Your task to perform on an android device: toggle wifi Image 0: 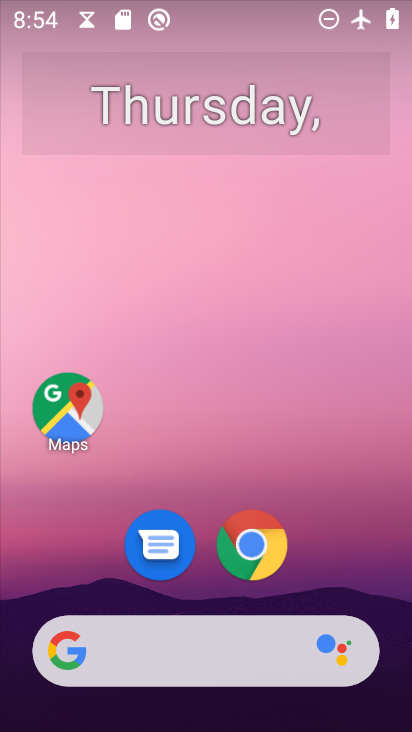
Step 0: drag from (350, 578) to (250, 142)
Your task to perform on an android device: toggle wifi Image 1: 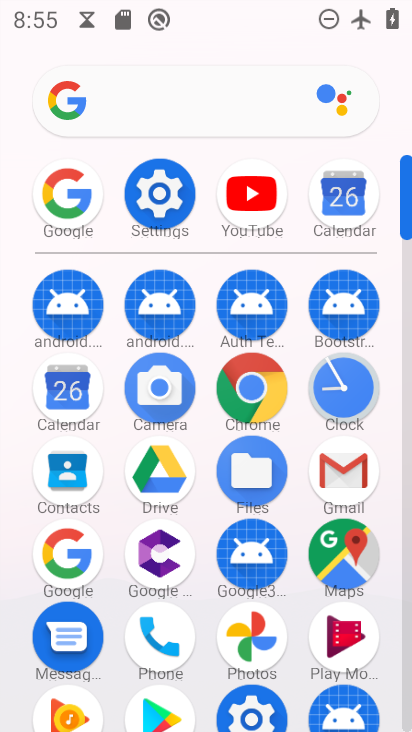
Step 1: click (161, 191)
Your task to perform on an android device: toggle wifi Image 2: 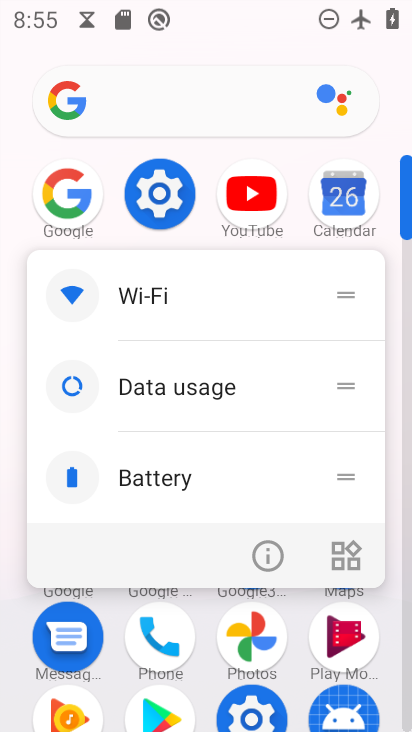
Step 2: click (161, 191)
Your task to perform on an android device: toggle wifi Image 3: 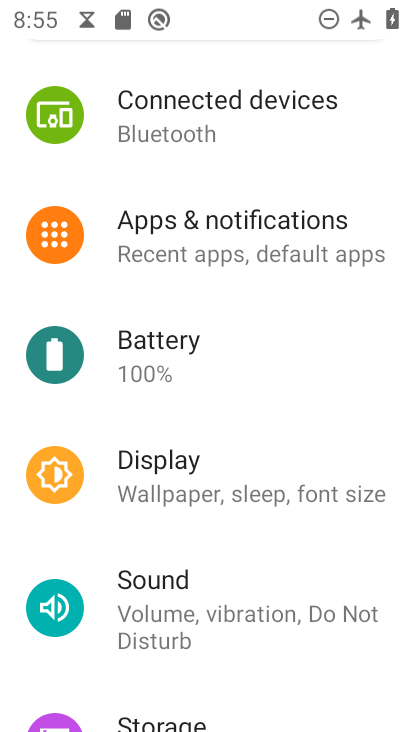
Step 3: drag from (202, 159) to (219, 273)
Your task to perform on an android device: toggle wifi Image 4: 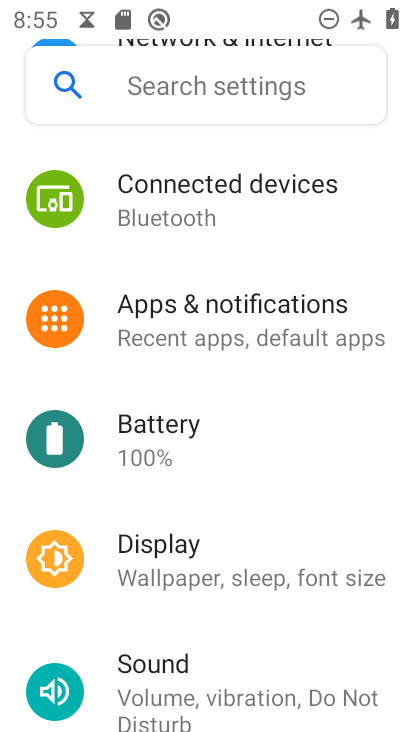
Step 4: drag from (218, 159) to (263, 286)
Your task to perform on an android device: toggle wifi Image 5: 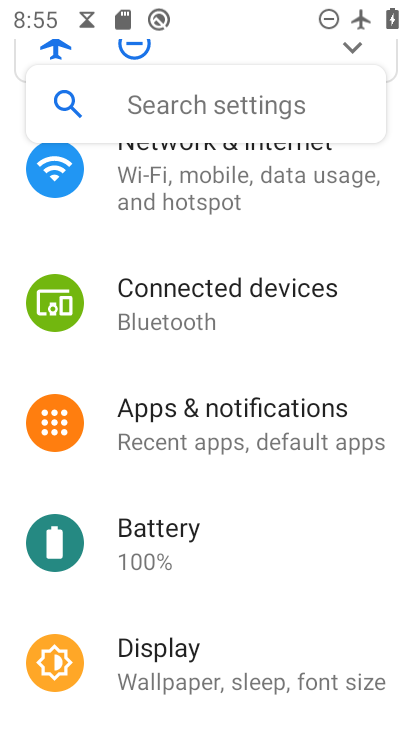
Step 5: drag from (228, 252) to (256, 399)
Your task to perform on an android device: toggle wifi Image 6: 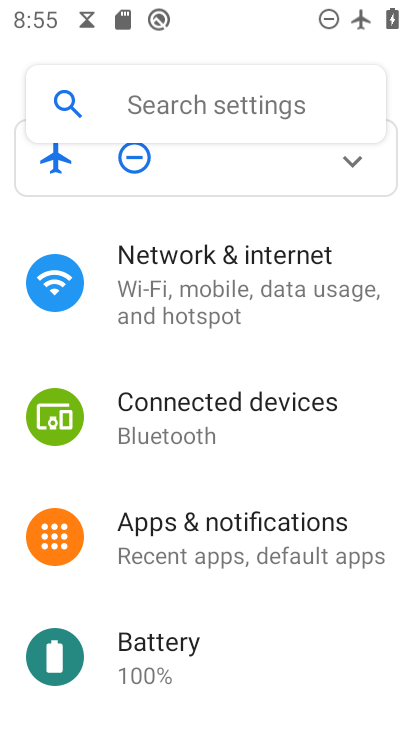
Step 6: click (218, 266)
Your task to perform on an android device: toggle wifi Image 7: 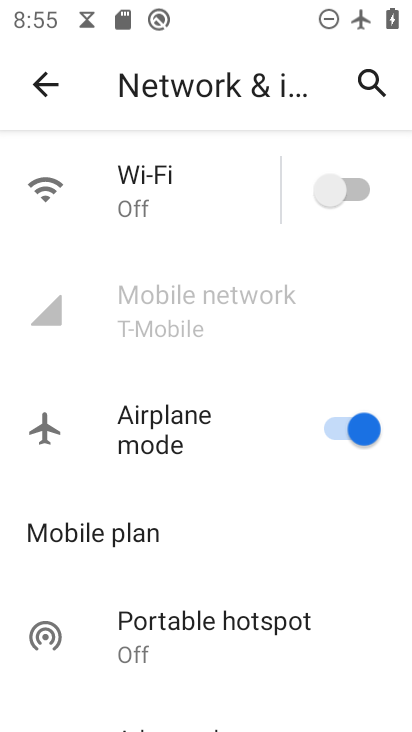
Step 7: click (342, 185)
Your task to perform on an android device: toggle wifi Image 8: 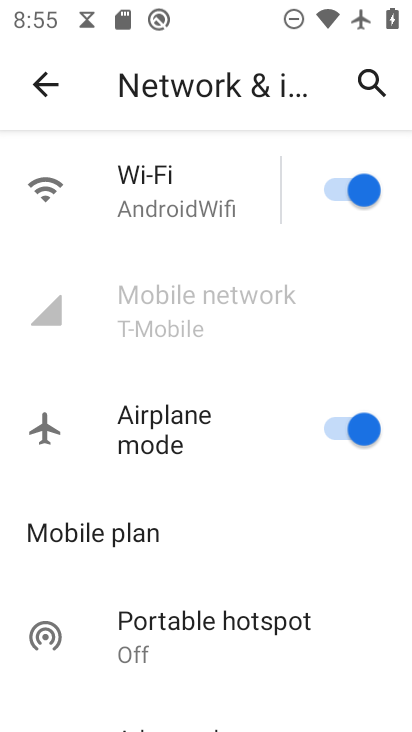
Step 8: task complete